Your task to perform on an android device: read, delete, or share a saved page in the chrome app Image 0: 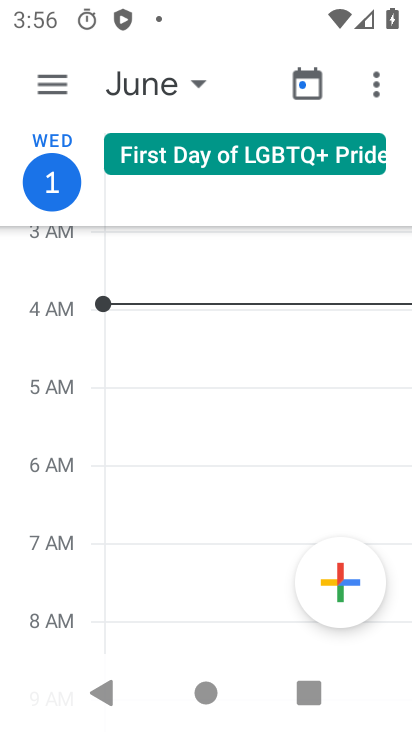
Step 0: press home button
Your task to perform on an android device: read, delete, or share a saved page in the chrome app Image 1: 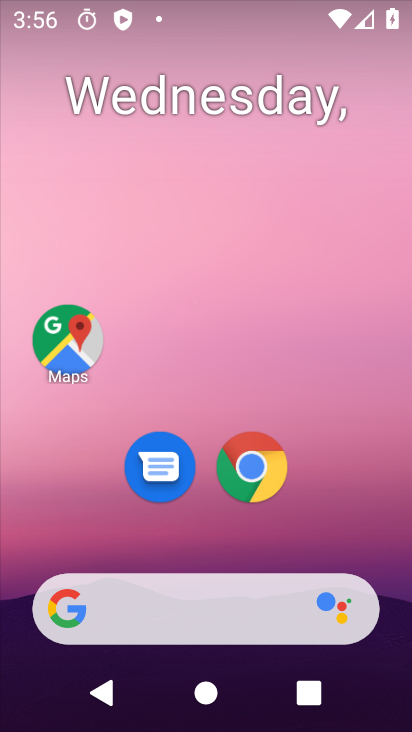
Step 1: click (272, 484)
Your task to perform on an android device: read, delete, or share a saved page in the chrome app Image 2: 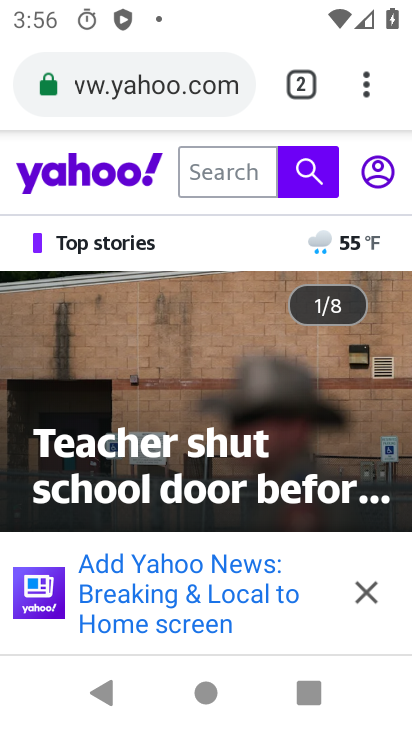
Step 2: click (369, 92)
Your task to perform on an android device: read, delete, or share a saved page in the chrome app Image 3: 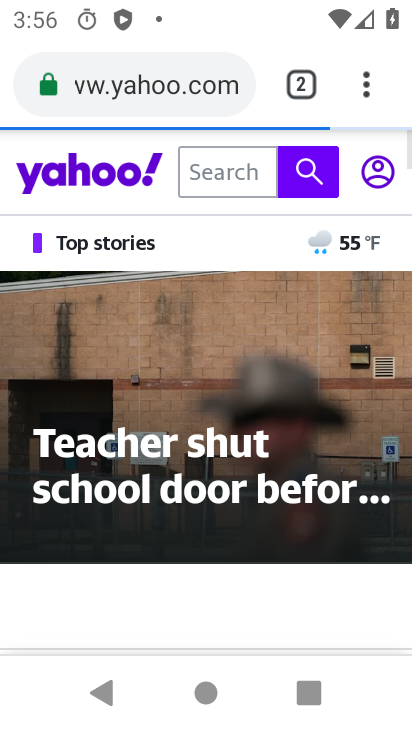
Step 3: click (357, 79)
Your task to perform on an android device: read, delete, or share a saved page in the chrome app Image 4: 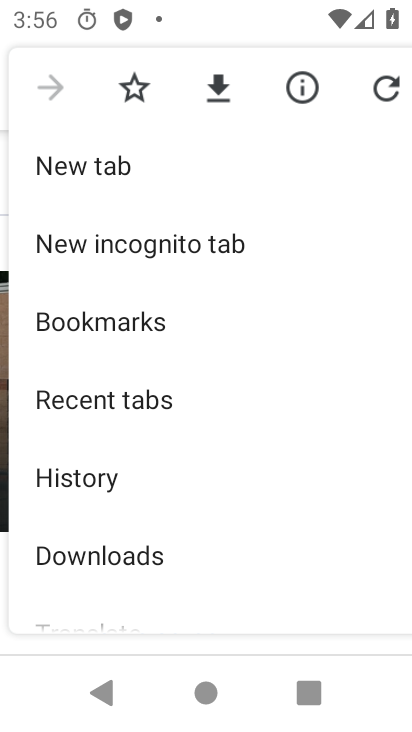
Step 4: click (113, 550)
Your task to perform on an android device: read, delete, or share a saved page in the chrome app Image 5: 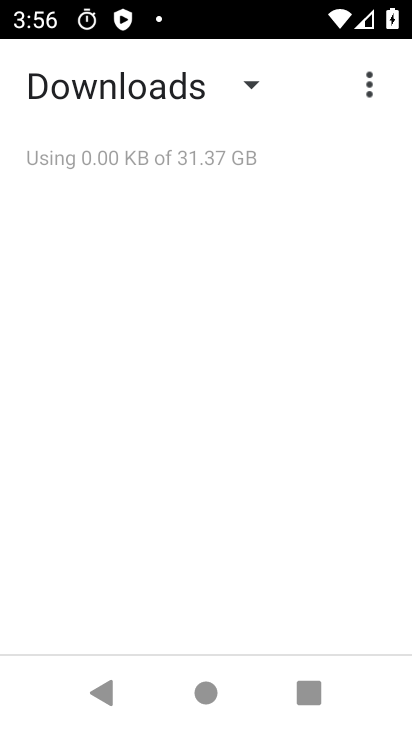
Step 5: click (80, 70)
Your task to perform on an android device: read, delete, or share a saved page in the chrome app Image 6: 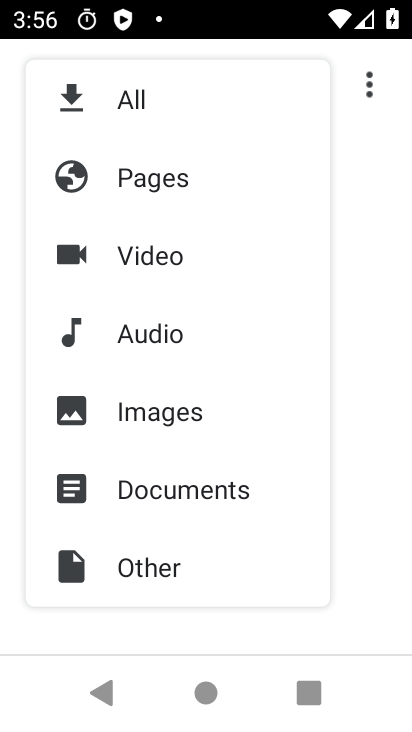
Step 6: click (132, 194)
Your task to perform on an android device: read, delete, or share a saved page in the chrome app Image 7: 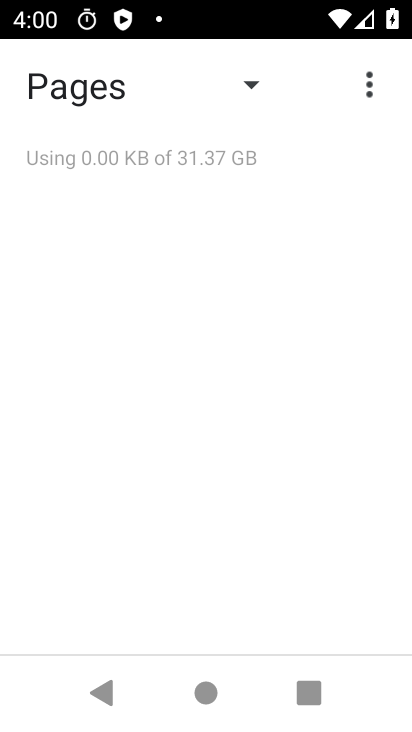
Step 7: task complete